Your task to perform on an android device: change text size in settings app Image 0: 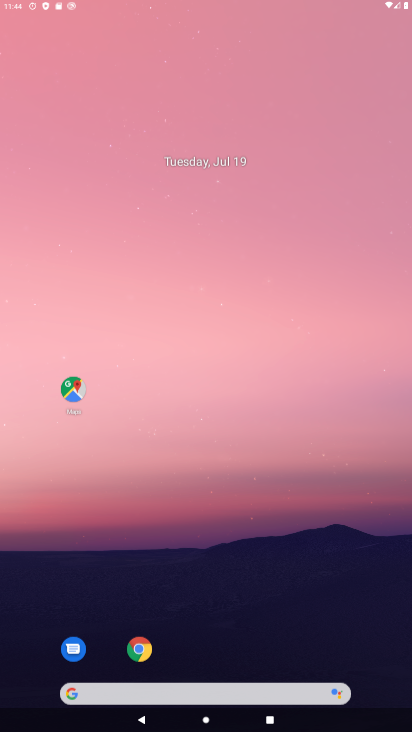
Step 0: click (218, 421)
Your task to perform on an android device: change text size in settings app Image 1: 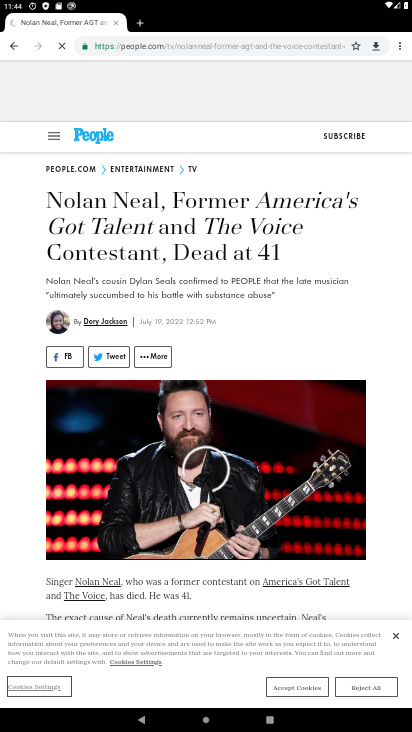
Step 1: press home button
Your task to perform on an android device: change text size in settings app Image 2: 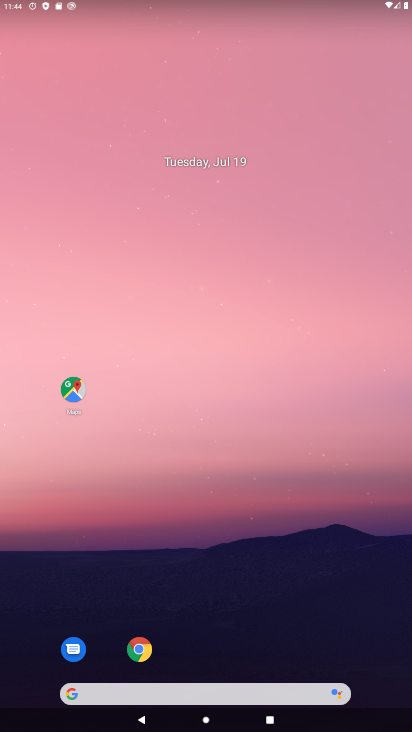
Step 2: drag from (230, 726) to (237, 273)
Your task to perform on an android device: change text size in settings app Image 3: 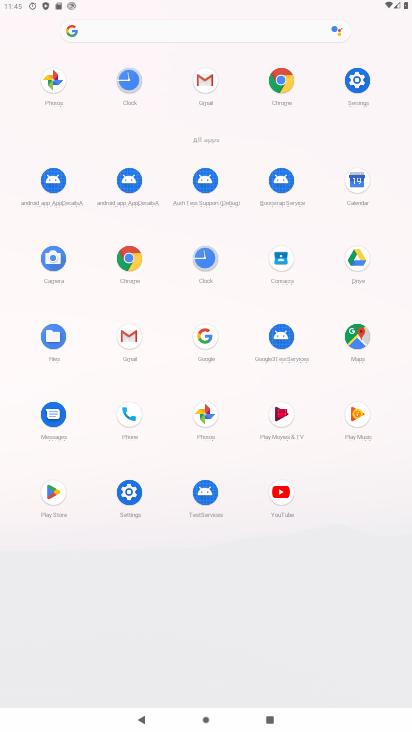
Step 3: click (364, 78)
Your task to perform on an android device: change text size in settings app Image 4: 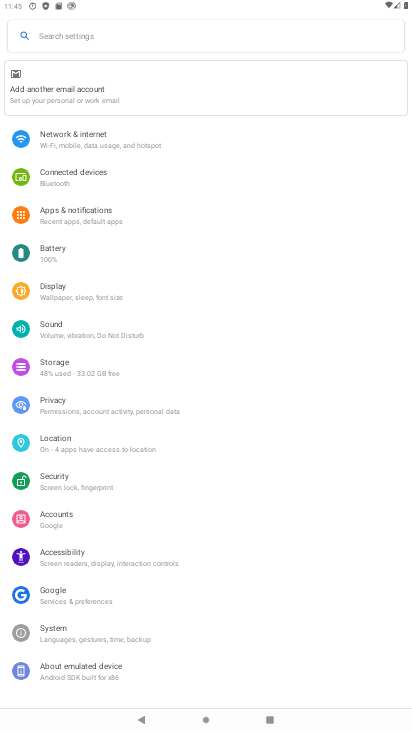
Step 4: click (75, 298)
Your task to perform on an android device: change text size in settings app Image 5: 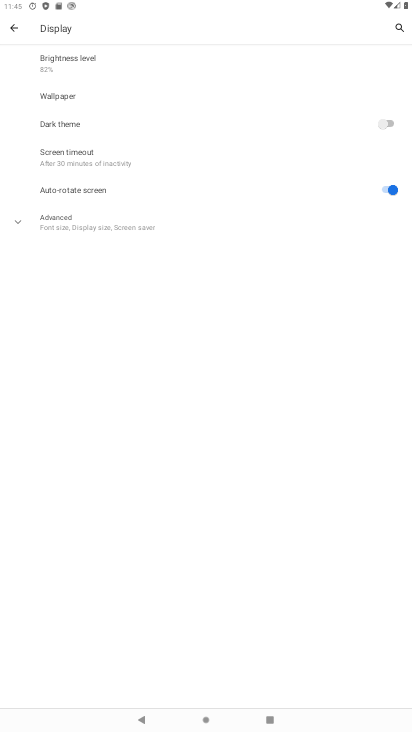
Step 5: click (58, 223)
Your task to perform on an android device: change text size in settings app Image 6: 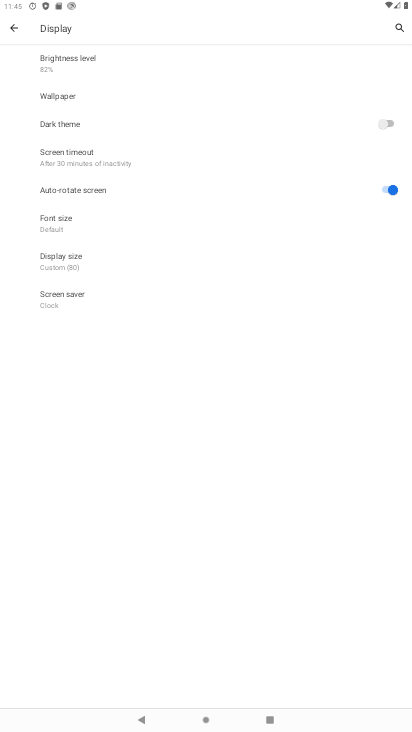
Step 6: click (58, 220)
Your task to perform on an android device: change text size in settings app Image 7: 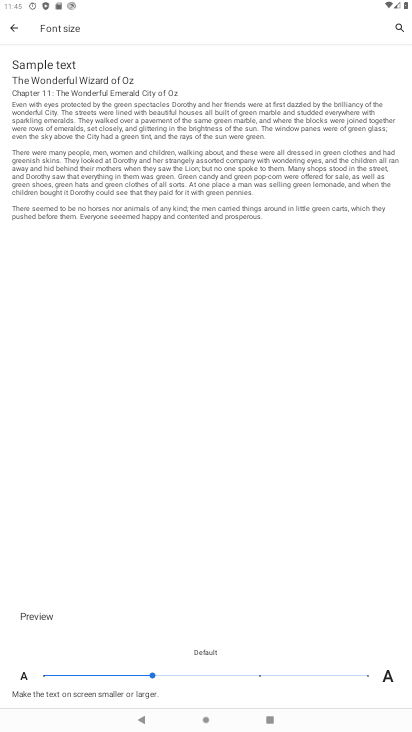
Step 7: click (368, 675)
Your task to perform on an android device: change text size in settings app Image 8: 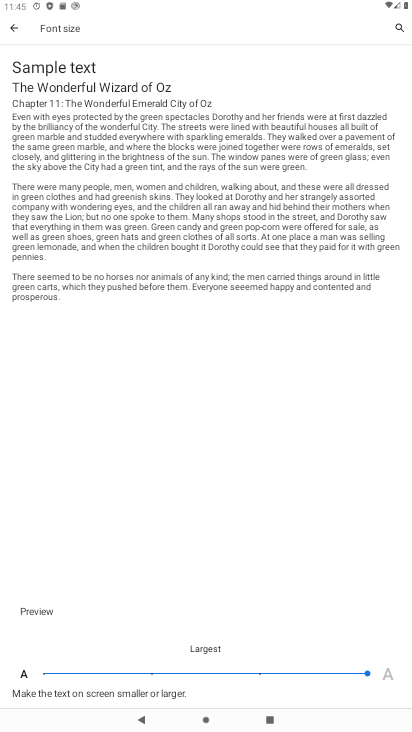
Step 8: task complete